Your task to perform on an android device: create a new album in the google photos Image 0: 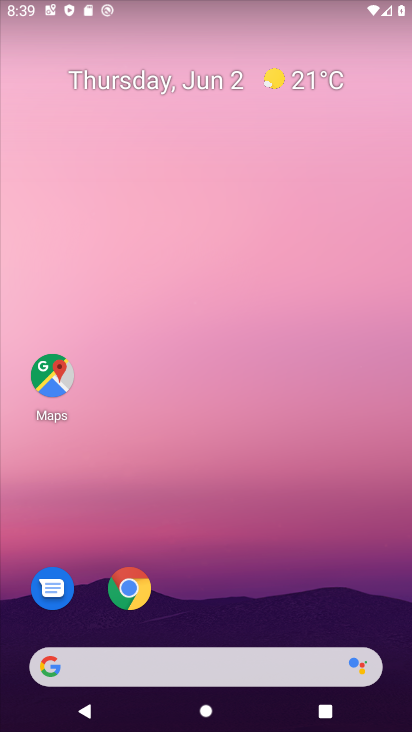
Step 0: drag from (197, 654) to (141, 122)
Your task to perform on an android device: create a new album in the google photos Image 1: 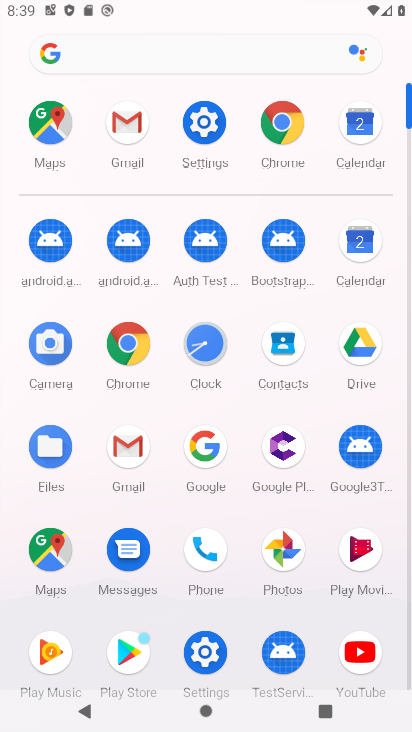
Step 1: click (272, 543)
Your task to perform on an android device: create a new album in the google photos Image 2: 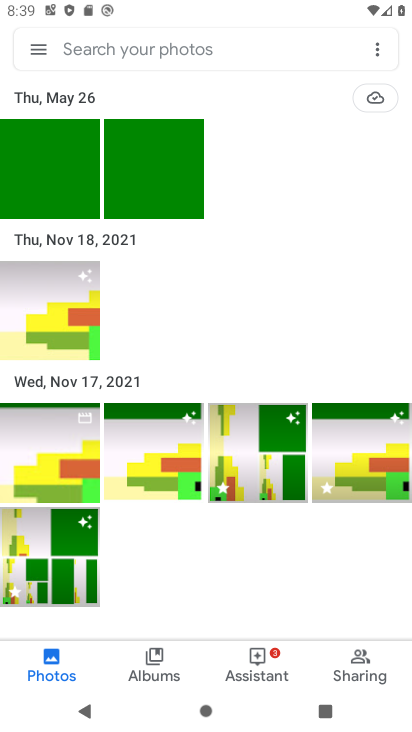
Step 2: click (283, 683)
Your task to perform on an android device: create a new album in the google photos Image 3: 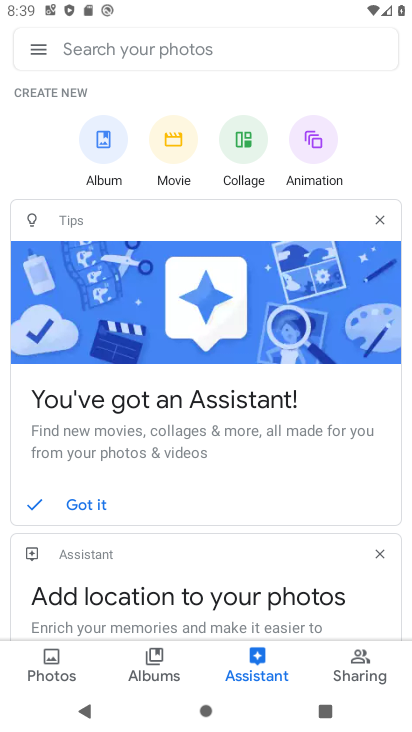
Step 3: click (100, 151)
Your task to perform on an android device: create a new album in the google photos Image 4: 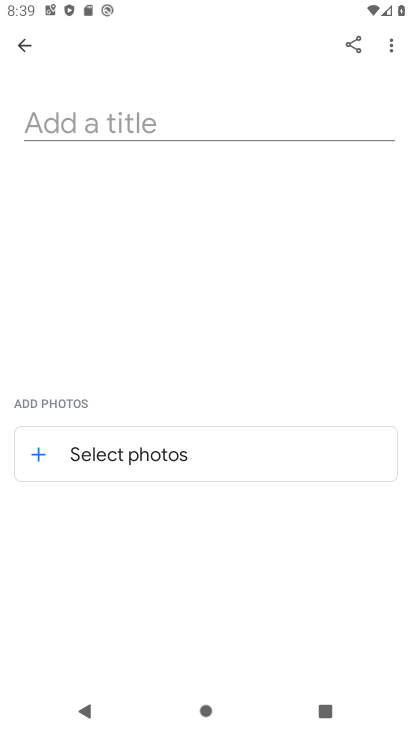
Step 4: click (148, 117)
Your task to perform on an android device: create a new album in the google photos Image 5: 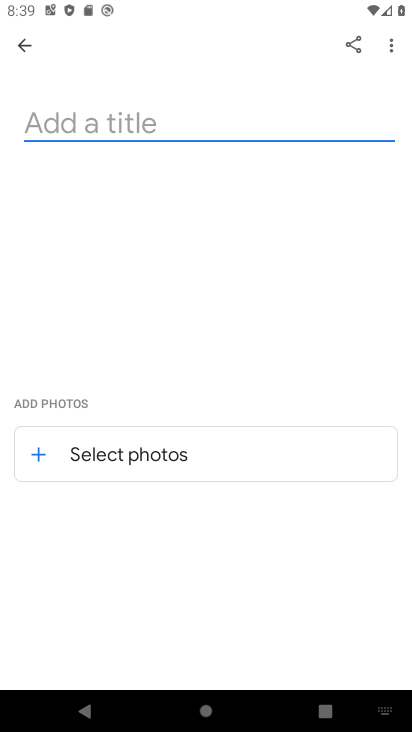
Step 5: type "xcvxcve"
Your task to perform on an android device: create a new album in the google photos Image 6: 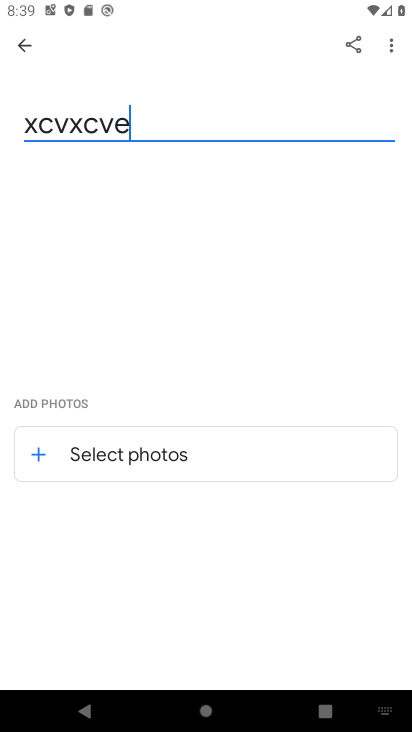
Step 6: click (196, 444)
Your task to perform on an android device: create a new album in the google photos Image 7: 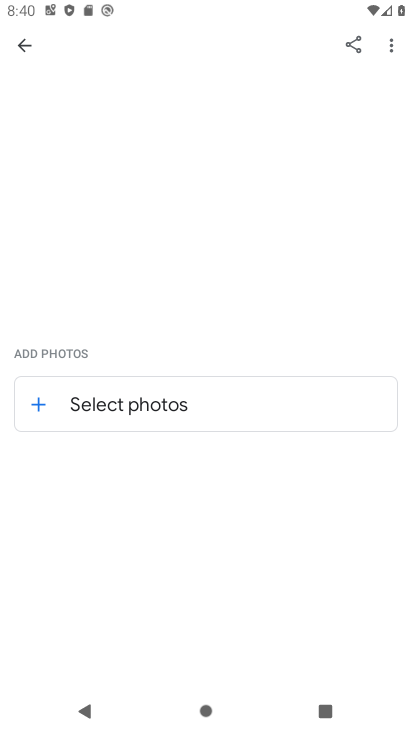
Step 7: click (185, 390)
Your task to perform on an android device: create a new album in the google photos Image 8: 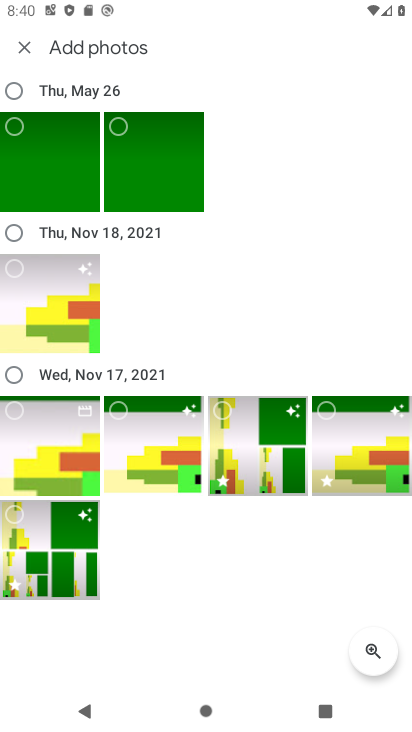
Step 8: click (23, 81)
Your task to perform on an android device: create a new album in the google photos Image 9: 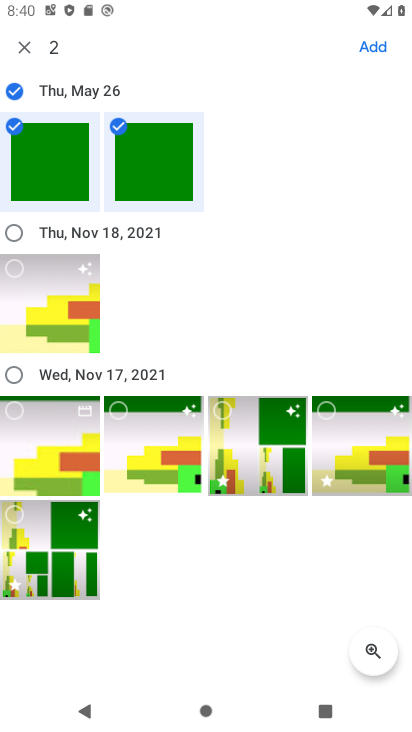
Step 9: click (17, 234)
Your task to perform on an android device: create a new album in the google photos Image 10: 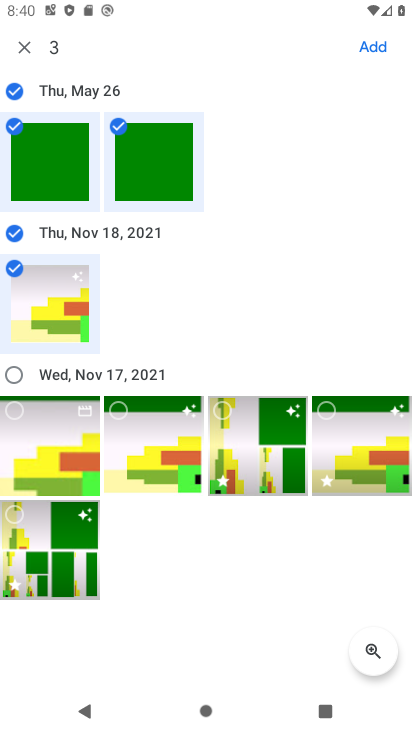
Step 10: click (6, 375)
Your task to perform on an android device: create a new album in the google photos Image 11: 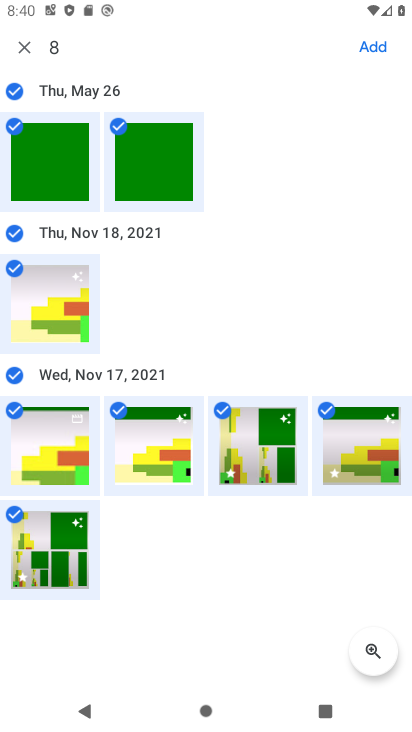
Step 11: click (374, 48)
Your task to perform on an android device: create a new album in the google photos Image 12: 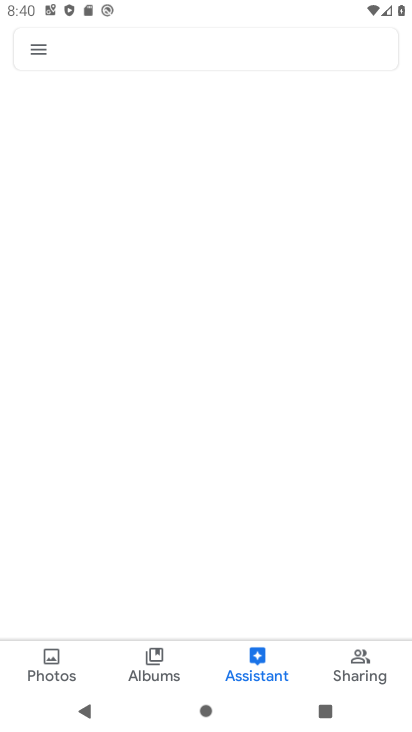
Step 12: task complete